Your task to perform on an android device: toggle priority inbox in the gmail app Image 0: 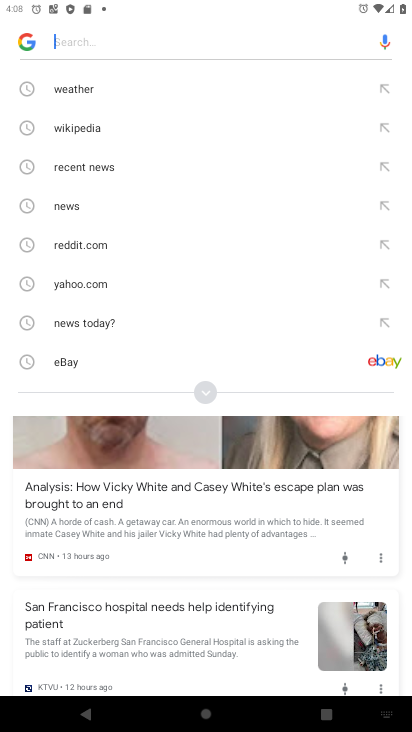
Step 0: press home button
Your task to perform on an android device: toggle priority inbox in the gmail app Image 1: 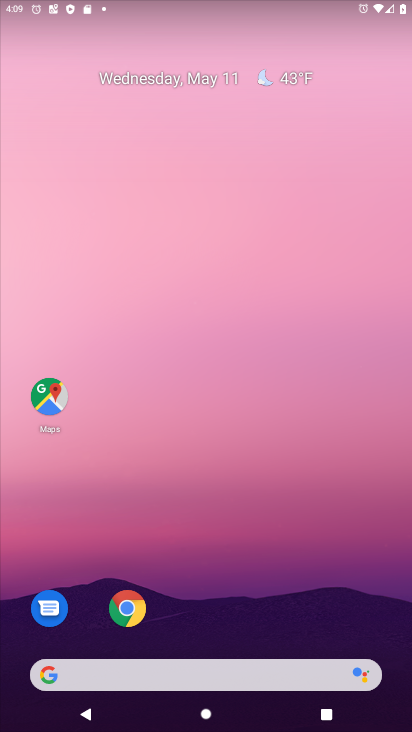
Step 1: drag from (224, 710) to (232, 270)
Your task to perform on an android device: toggle priority inbox in the gmail app Image 2: 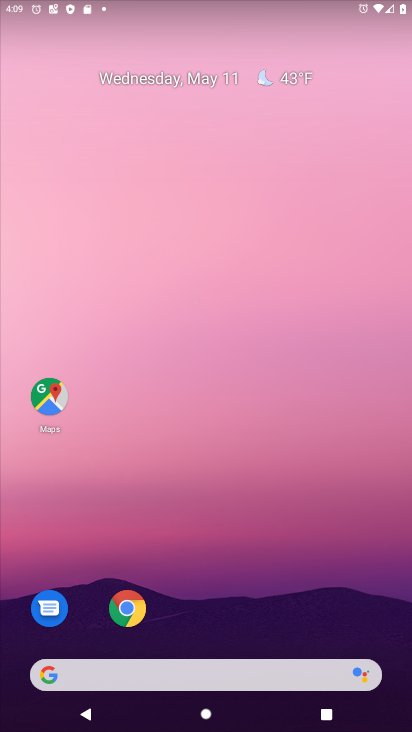
Step 2: drag from (213, 724) to (224, 262)
Your task to perform on an android device: toggle priority inbox in the gmail app Image 3: 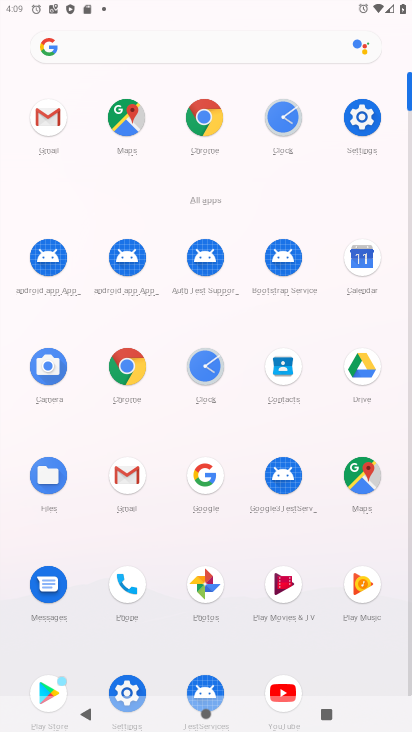
Step 3: click (120, 479)
Your task to perform on an android device: toggle priority inbox in the gmail app Image 4: 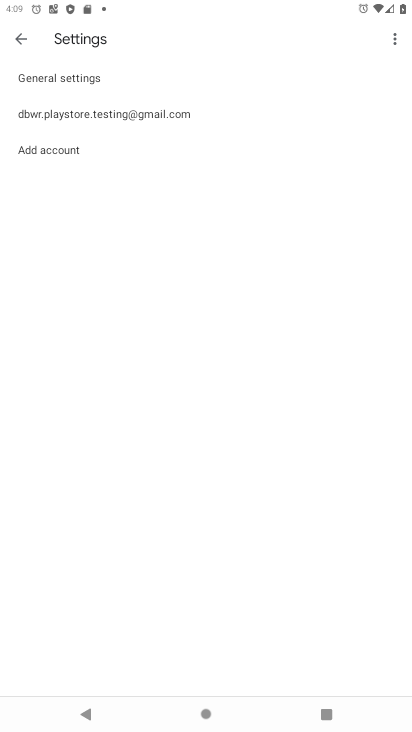
Step 4: click (170, 109)
Your task to perform on an android device: toggle priority inbox in the gmail app Image 5: 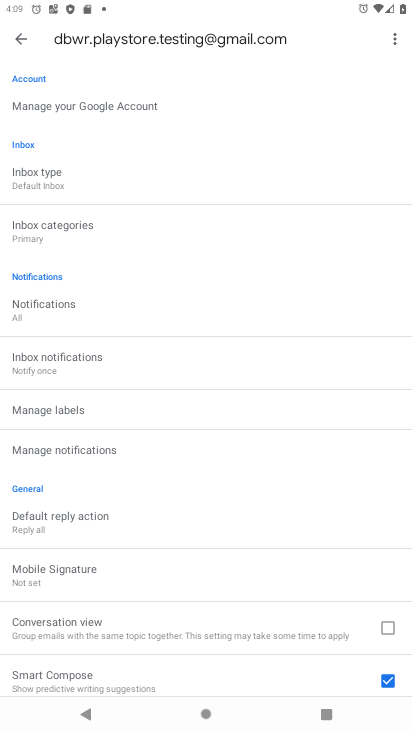
Step 5: click (51, 176)
Your task to perform on an android device: toggle priority inbox in the gmail app Image 6: 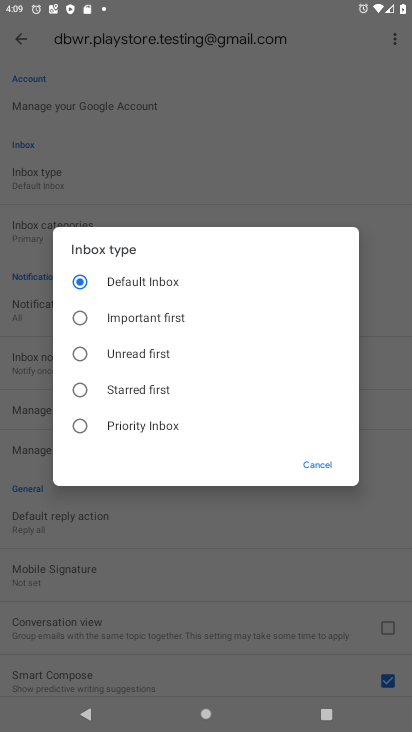
Step 6: click (78, 422)
Your task to perform on an android device: toggle priority inbox in the gmail app Image 7: 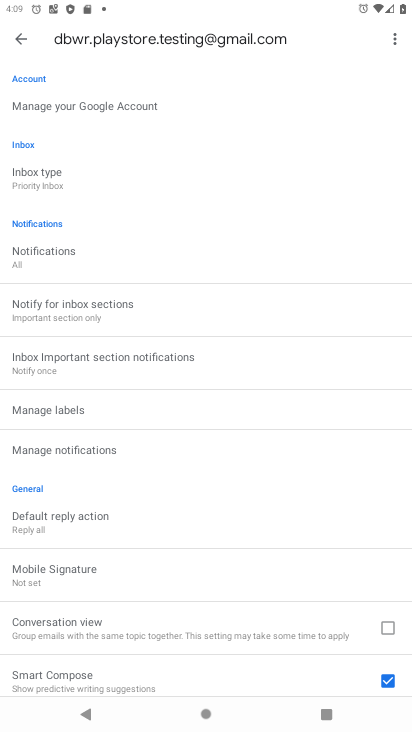
Step 7: task complete